Your task to perform on an android device: see sites visited before in the chrome app Image 0: 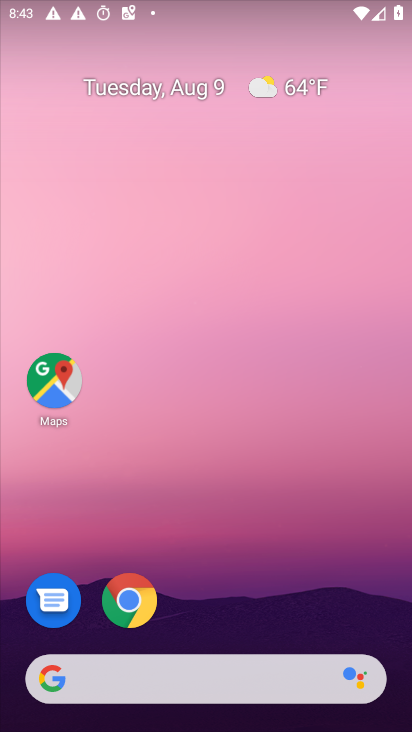
Step 0: press home button
Your task to perform on an android device: see sites visited before in the chrome app Image 1: 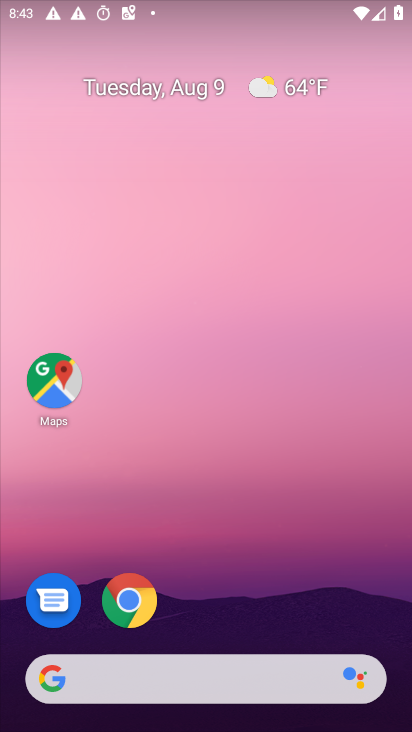
Step 1: click (123, 604)
Your task to perform on an android device: see sites visited before in the chrome app Image 2: 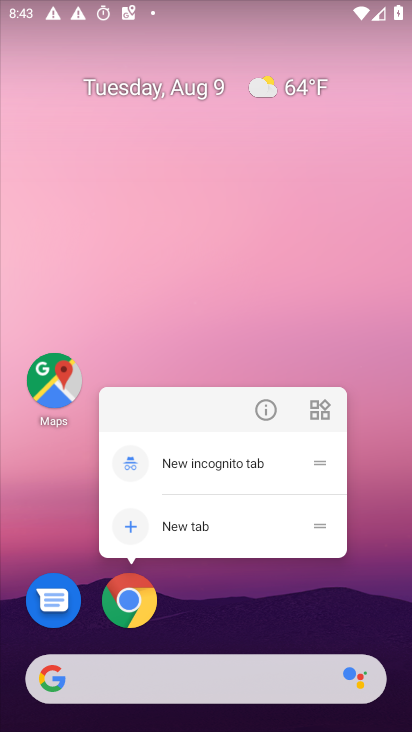
Step 2: click (123, 604)
Your task to perform on an android device: see sites visited before in the chrome app Image 3: 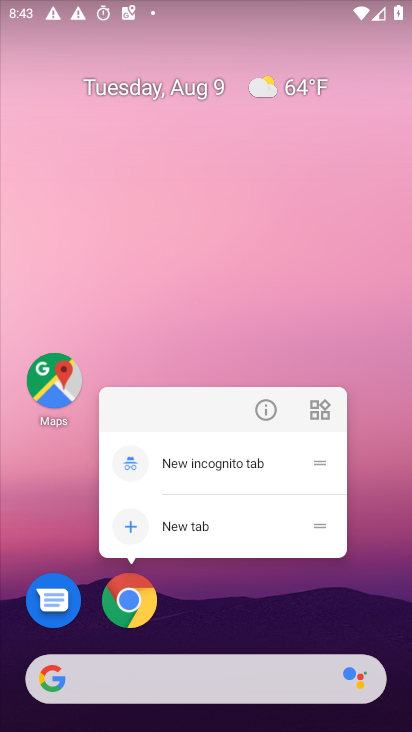
Step 3: click (123, 604)
Your task to perform on an android device: see sites visited before in the chrome app Image 4: 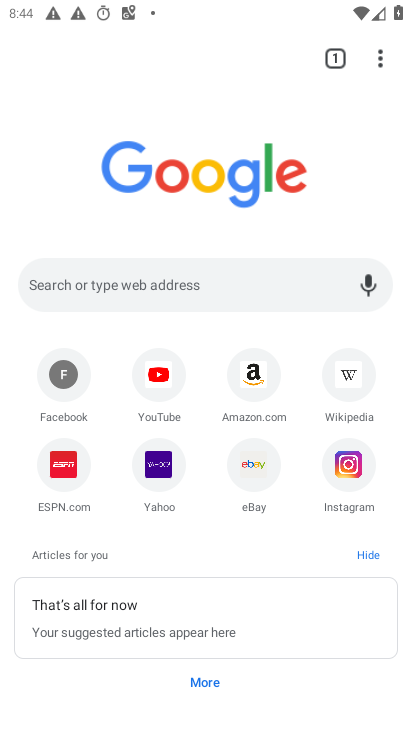
Step 4: task complete